Your task to perform on an android device: Toggle the flashlight Image 0: 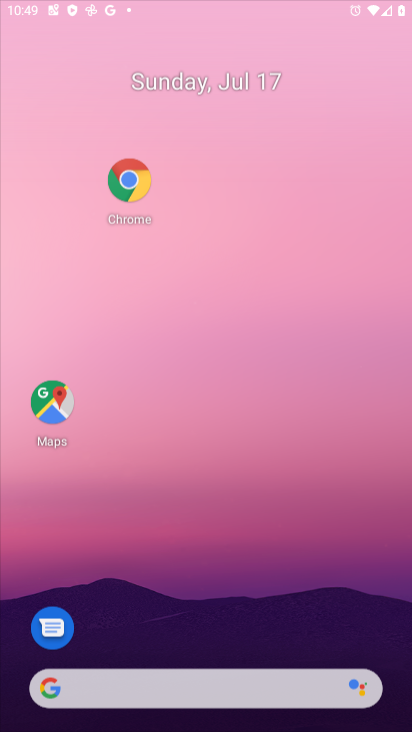
Step 0: click (129, 176)
Your task to perform on an android device: Toggle the flashlight Image 1: 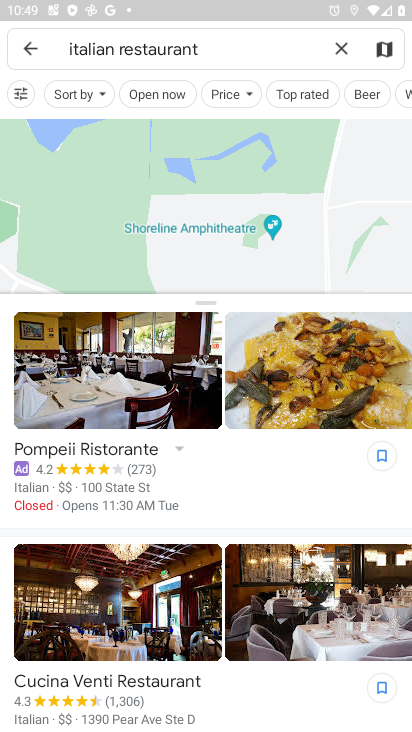
Step 1: click (28, 48)
Your task to perform on an android device: Toggle the flashlight Image 2: 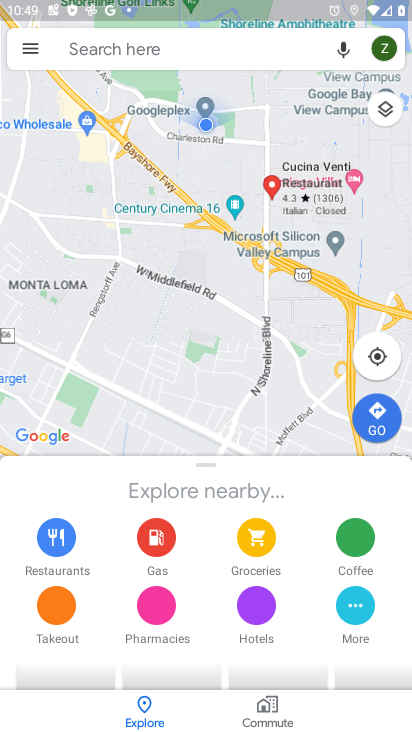
Step 2: click (28, 48)
Your task to perform on an android device: Toggle the flashlight Image 3: 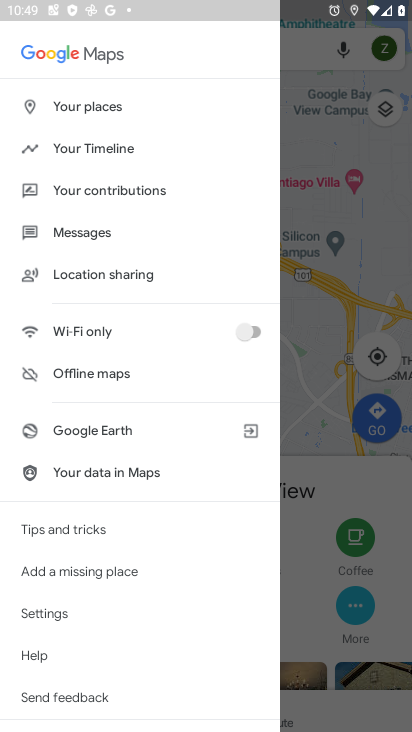
Step 3: task complete